Your task to perform on an android device: turn off improve location accuracy Image 0: 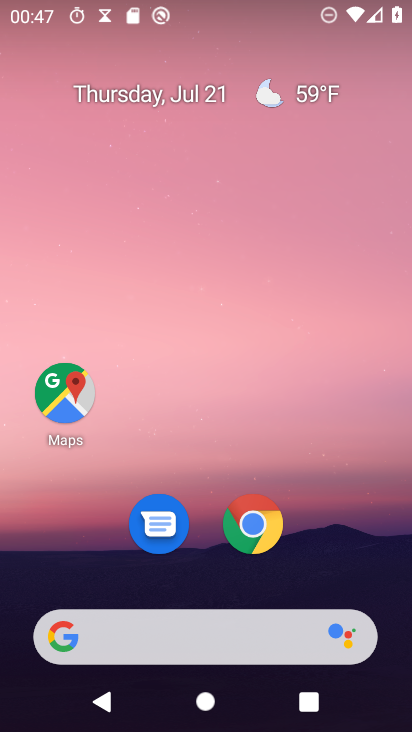
Step 0: drag from (151, 643) to (274, 84)
Your task to perform on an android device: turn off improve location accuracy Image 1: 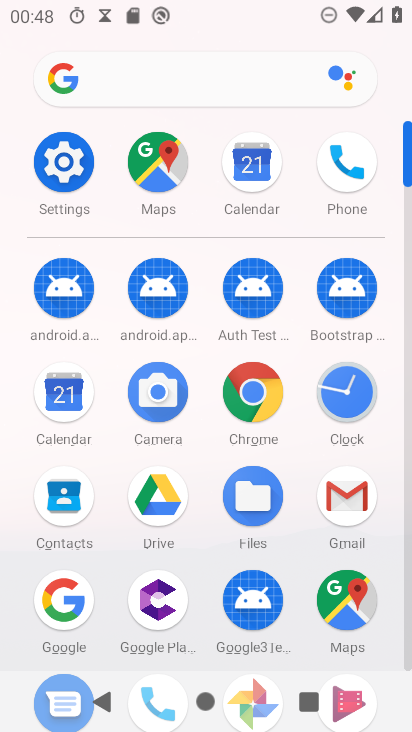
Step 1: click (57, 157)
Your task to perform on an android device: turn off improve location accuracy Image 2: 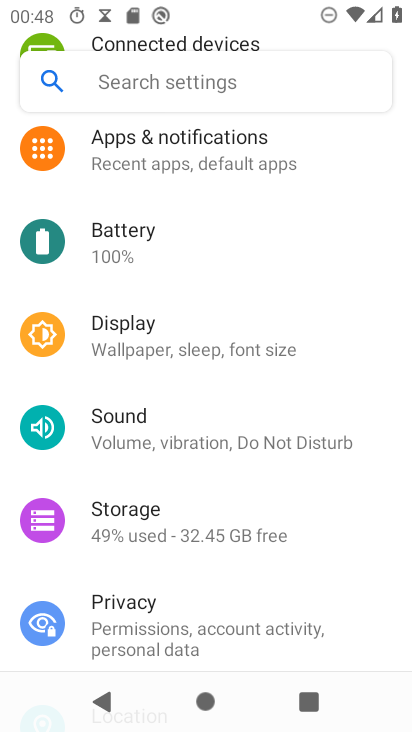
Step 2: drag from (276, 230) to (277, 87)
Your task to perform on an android device: turn off improve location accuracy Image 3: 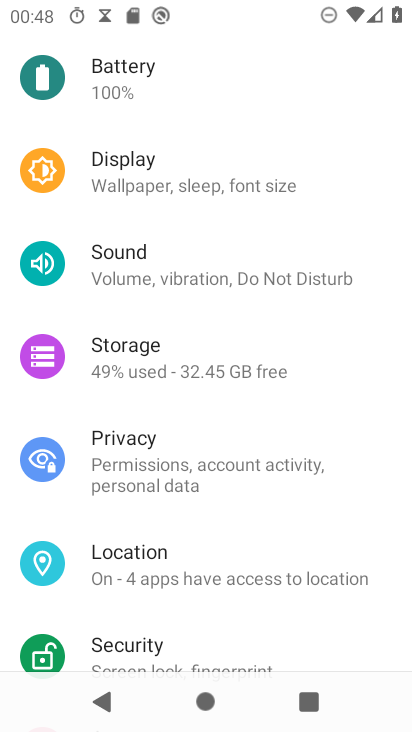
Step 3: click (191, 567)
Your task to perform on an android device: turn off improve location accuracy Image 4: 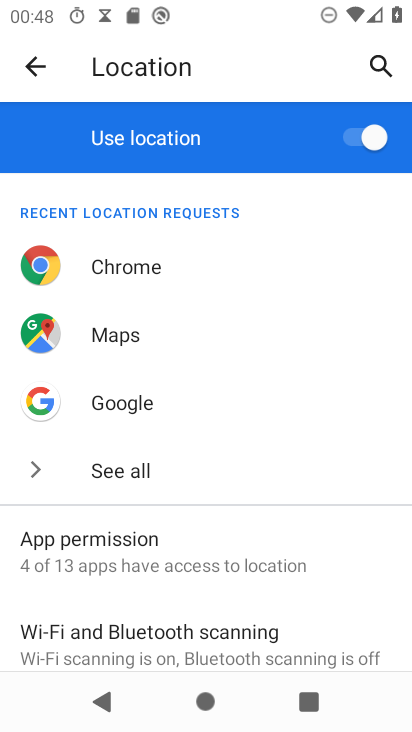
Step 4: drag from (214, 568) to (256, 227)
Your task to perform on an android device: turn off improve location accuracy Image 5: 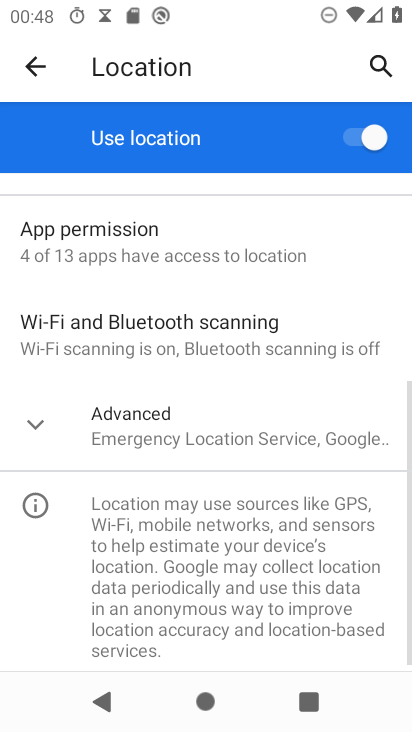
Step 5: click (172, 455)
Your task to perform on an android device: turn off improve location accuracy Image 6: 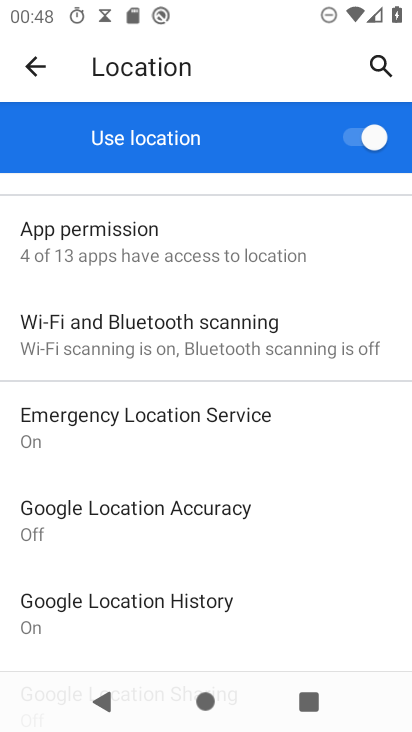
Step 6: click (132, 515)
Your task to perform on an android device: turn off improve location accuracy Image 7: 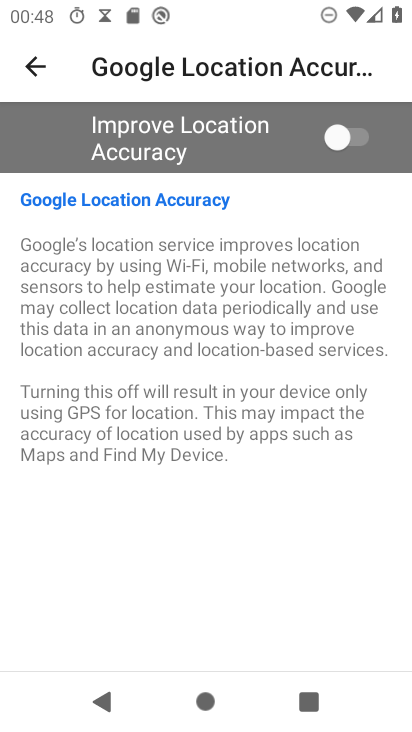
Step 7: task complete